Your task to perform on an android device: check out phone information Image 0: 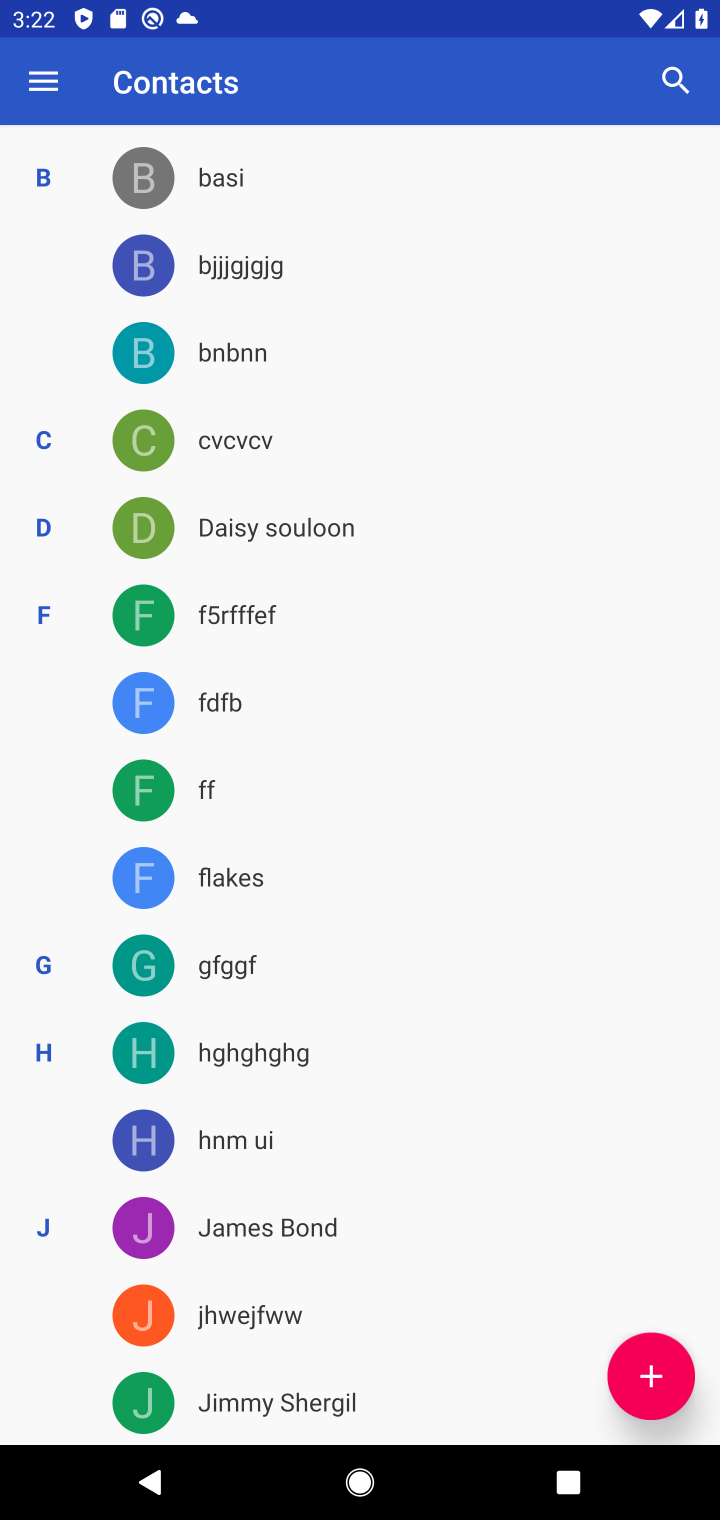
Step 0: press home button
Your task to perform on an android device: check out phone information Image 1: 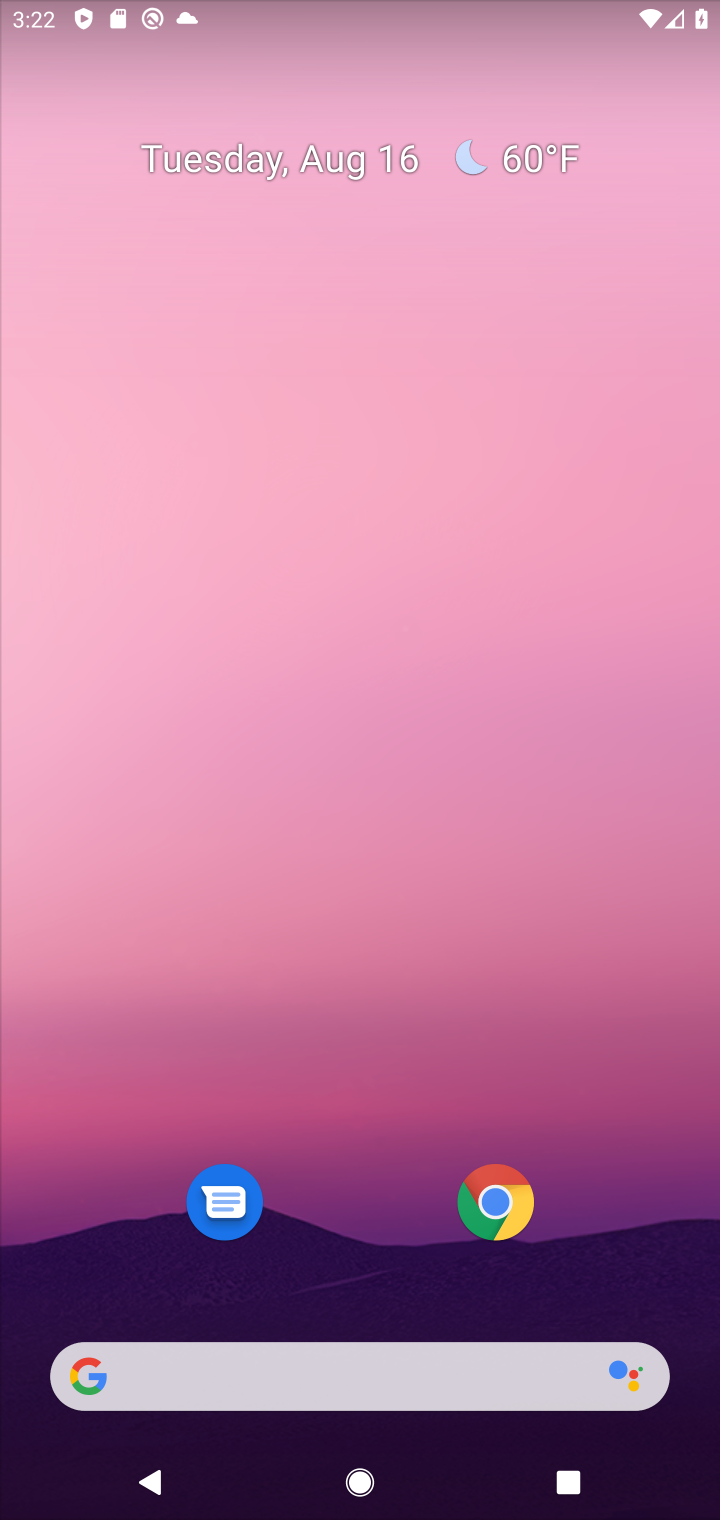
Step 1: drag from (405, 1124) to (420, 86)
Your task to perform on an android device: check out phone information Image 2: 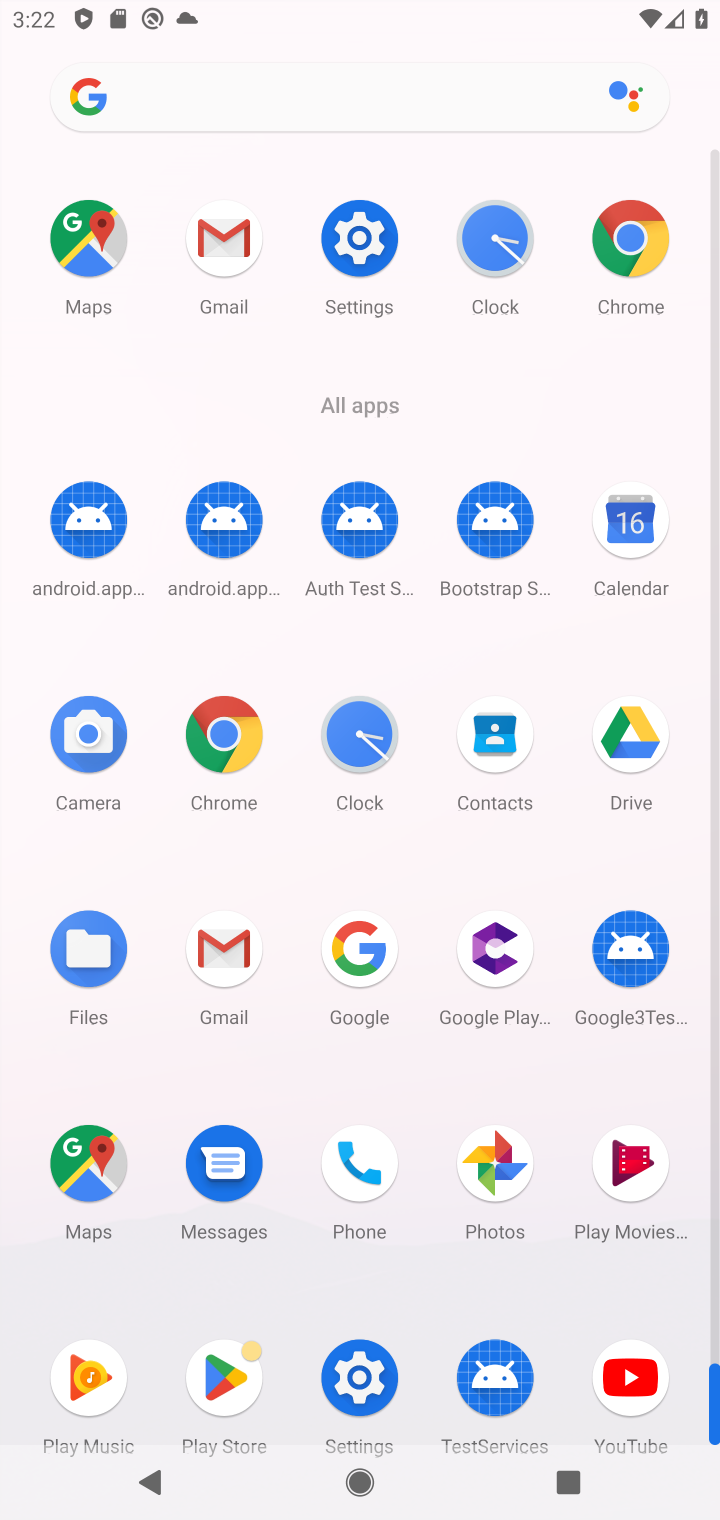
Step 2: drag from (407, 303) to (373, 48)
Your task to perform on an android device: check out phone information Image 3: 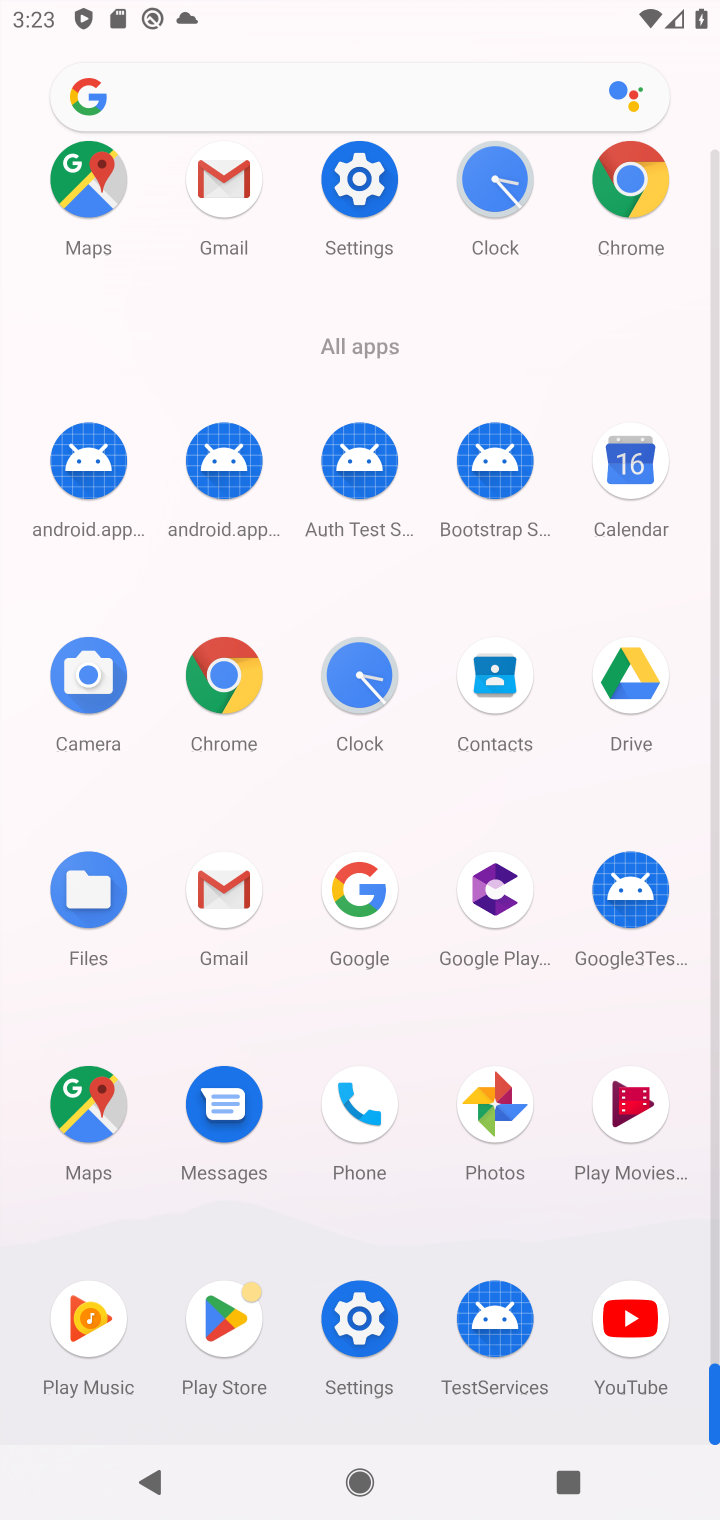
Step 3: click (376, 1321)
Your task to perform on an android device: check out phone information Image 4: 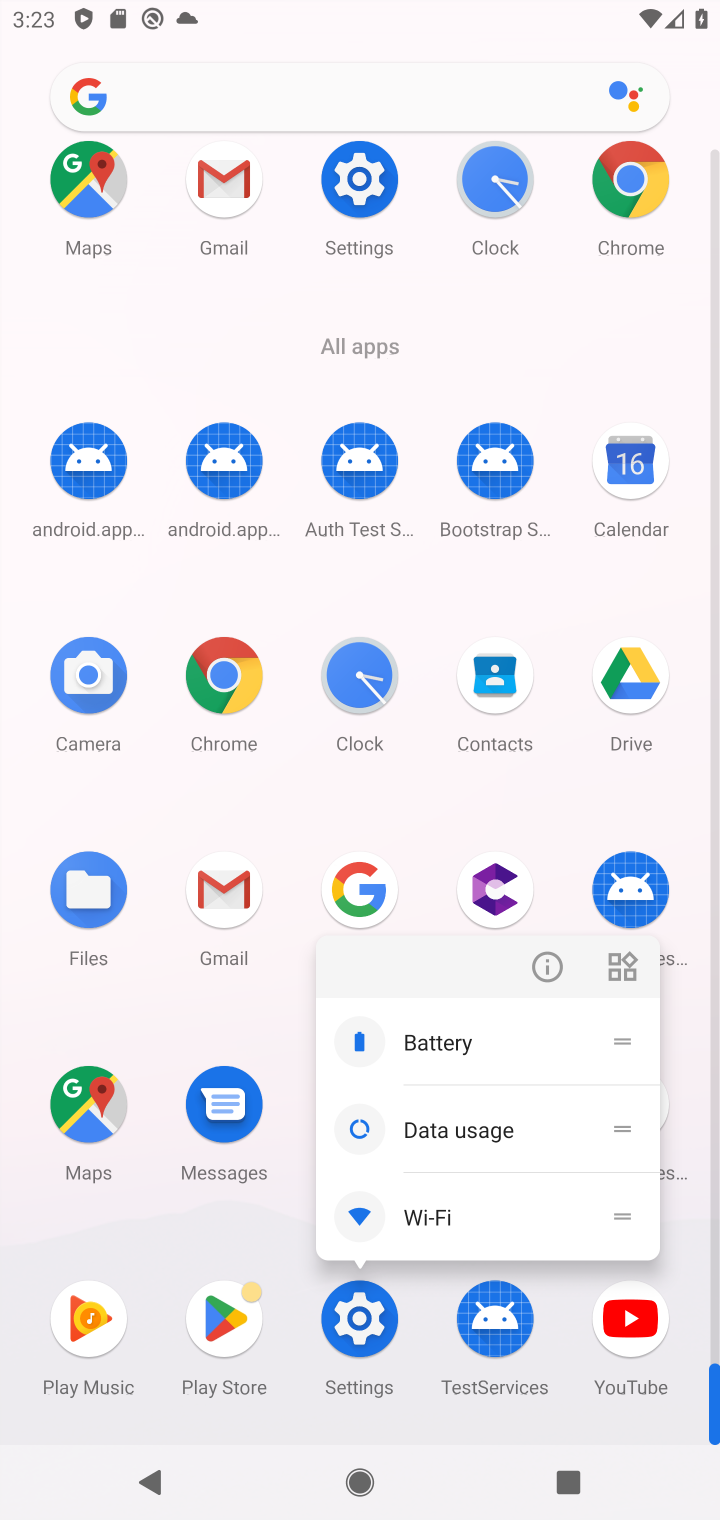
Step 4: click (376, 1321)
Your task to perform on an android device: check out phone information Image 5: 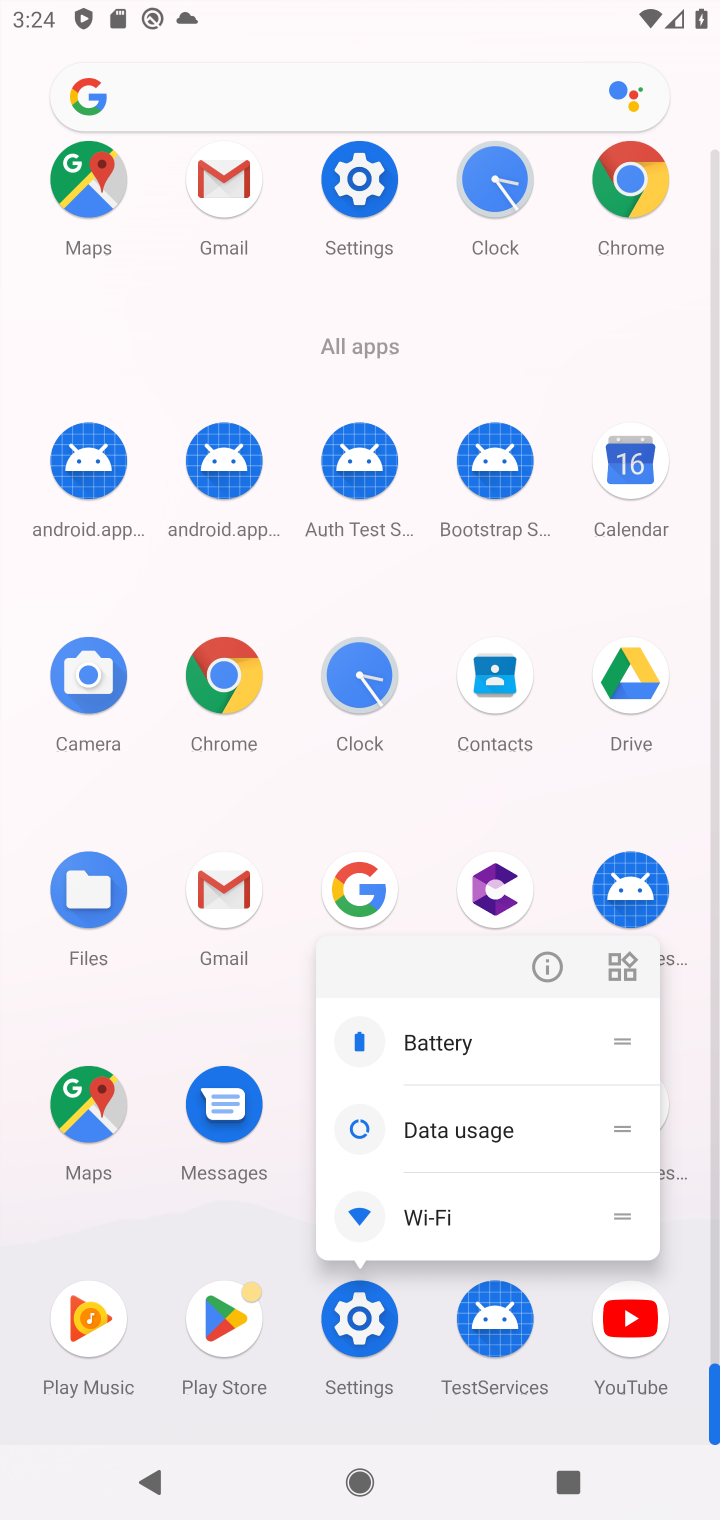
Step 5: click (388, 1327)
Your task to perform on an android device: check out phone information Image 6: 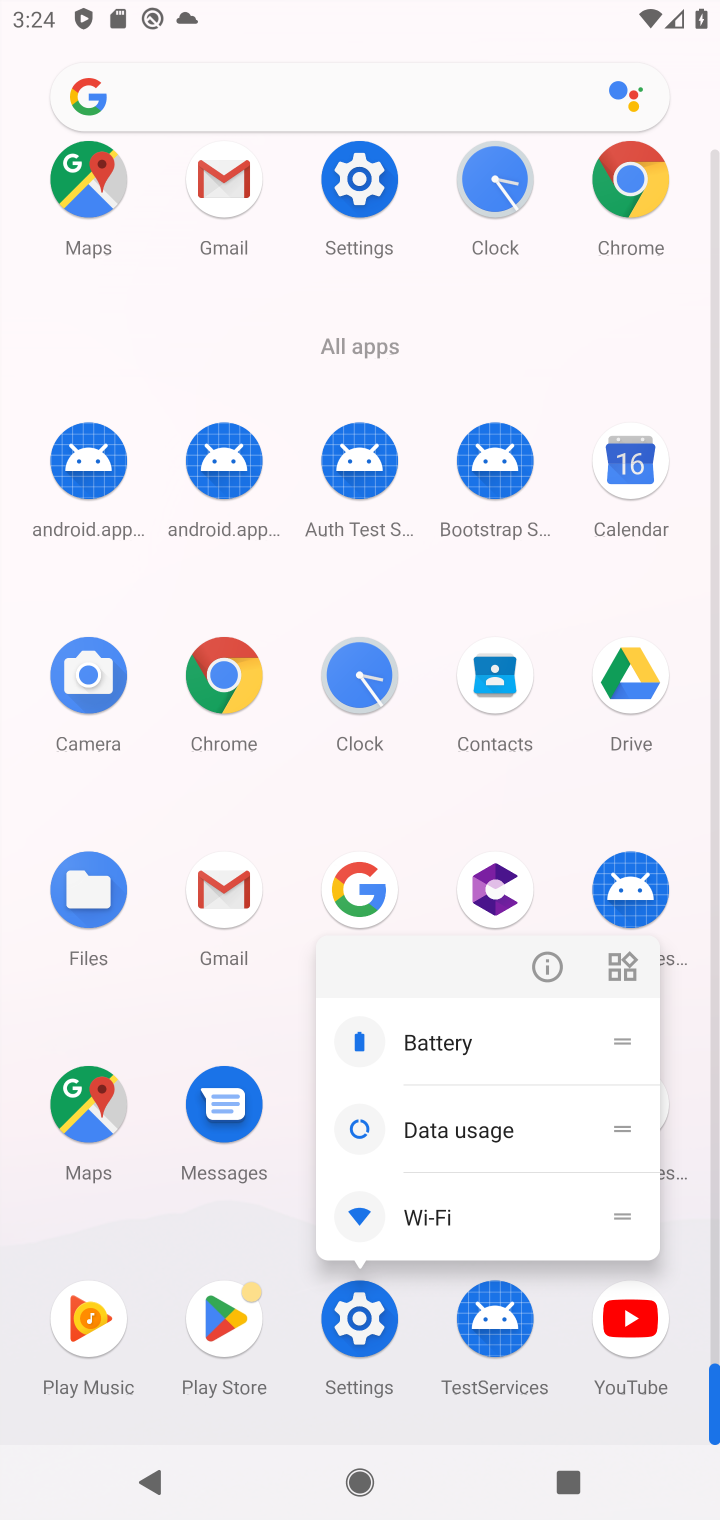
Step 6: click (388, 1327)
Your task to perform on an android device: check out phone information Image 7: 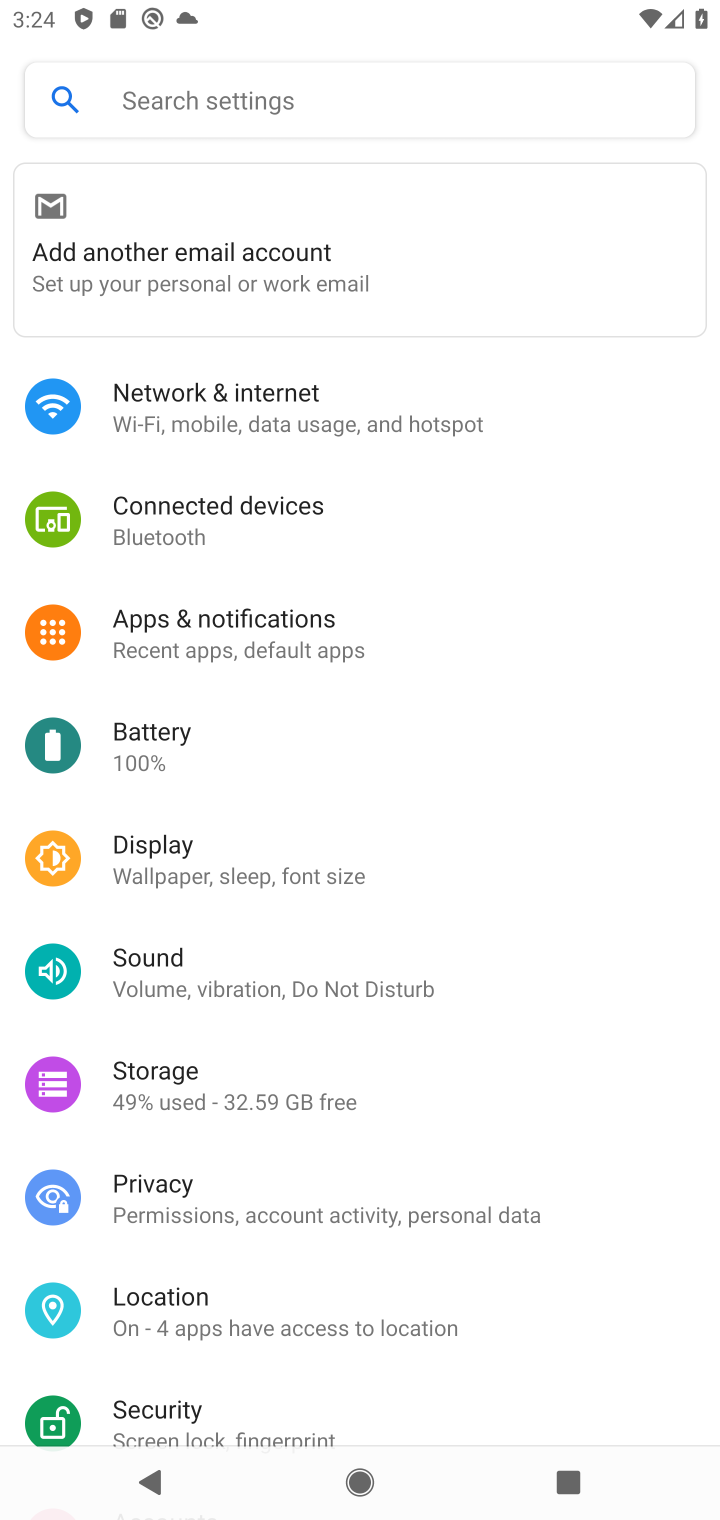
Step 7: drag from (360, 817) to (436, 32)
Your task to perform on an android device: check out phone information Image 8: 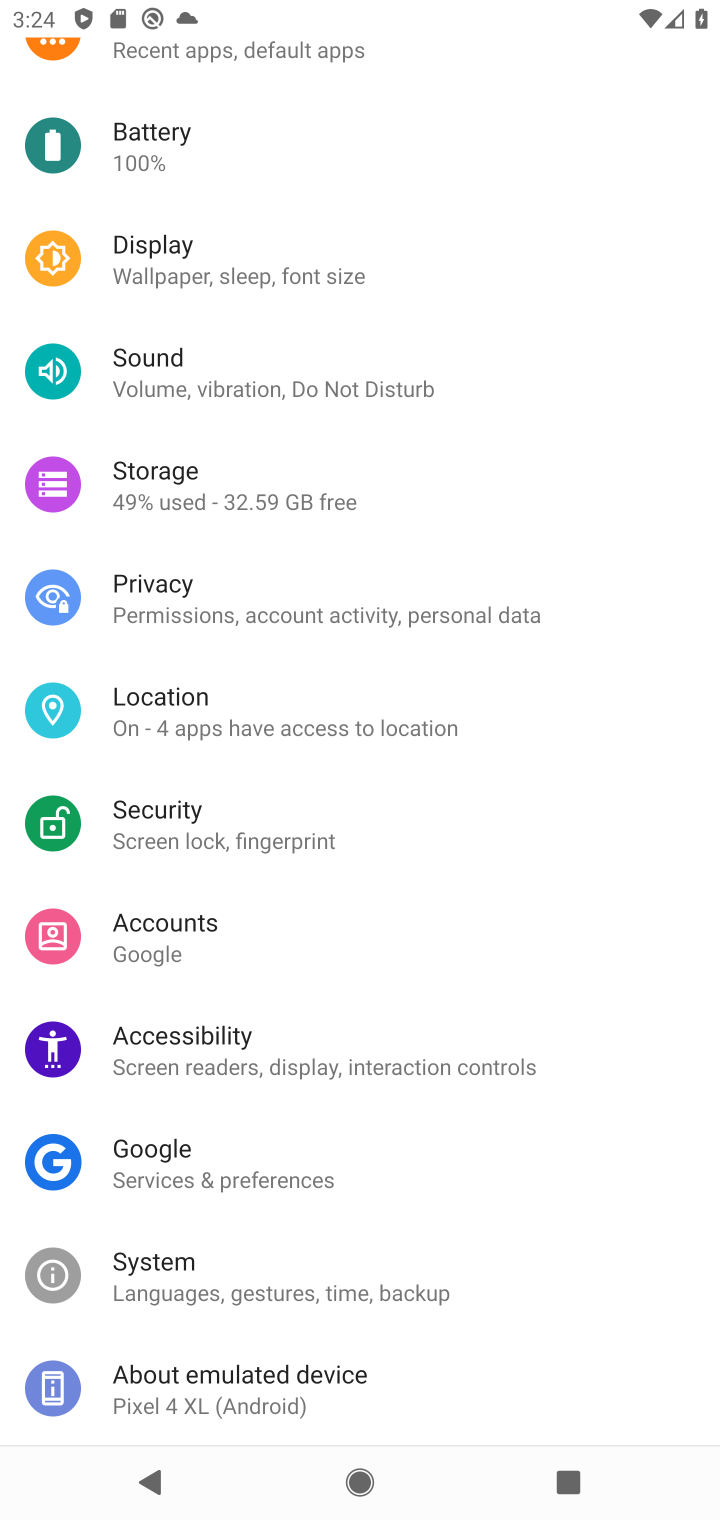
Step 8: click (264, 1393)
Your task to perform on an android device: check out phone information Image 9: 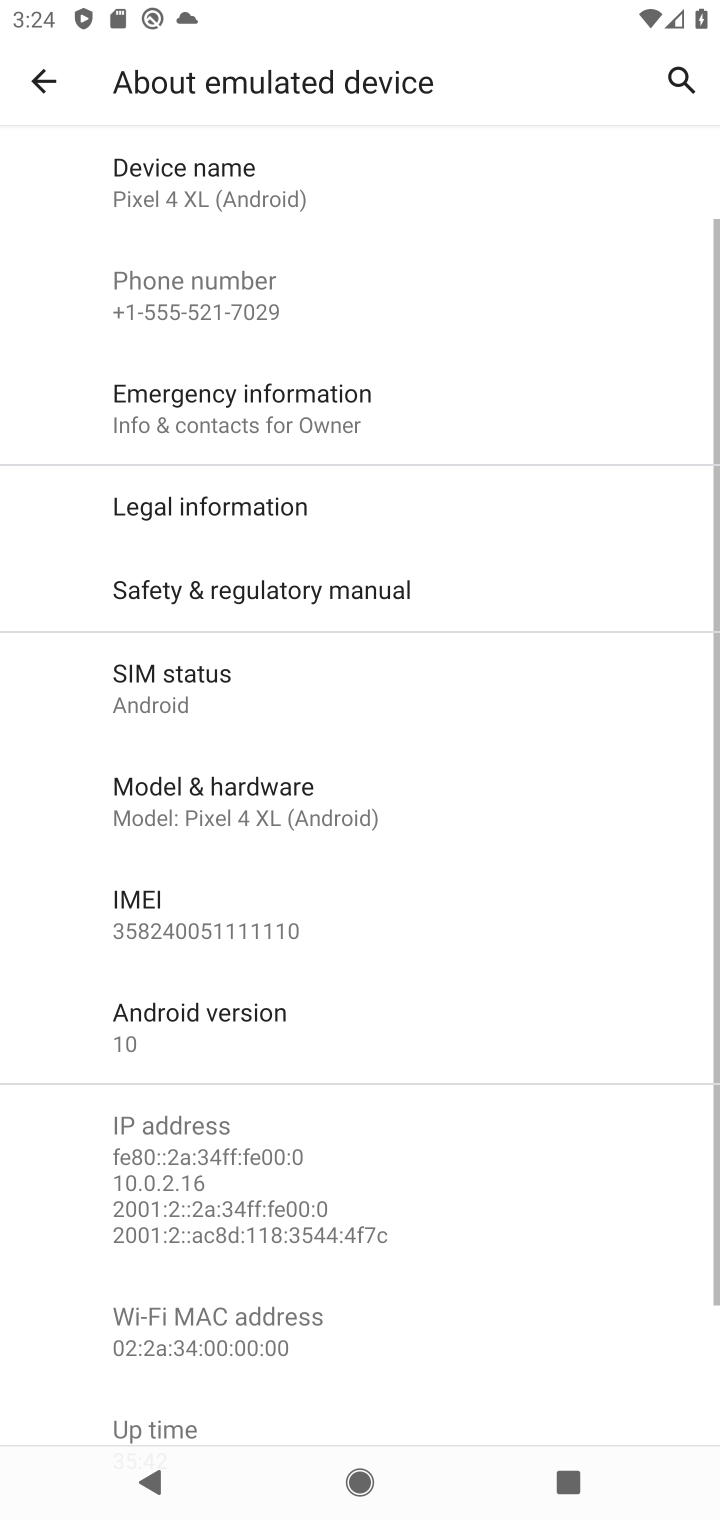
Step 9: task complete